Your task to perform on an android device: find photos in the google photos app Image 0: 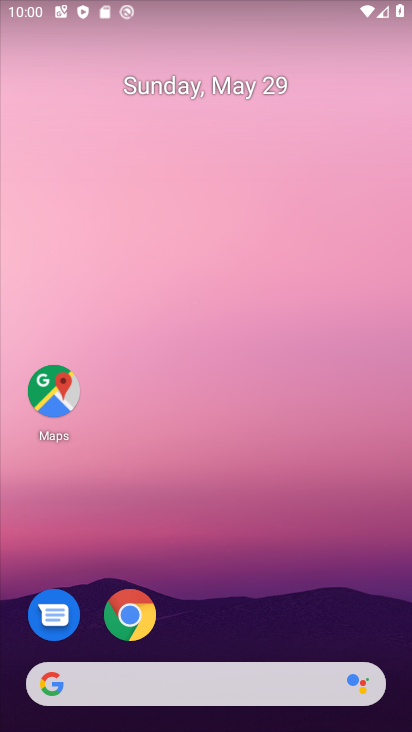
Step 0: drag from (201, 650) to (380, 460)
Your task to perform on an android device: find photos in the google photos app Image 1: 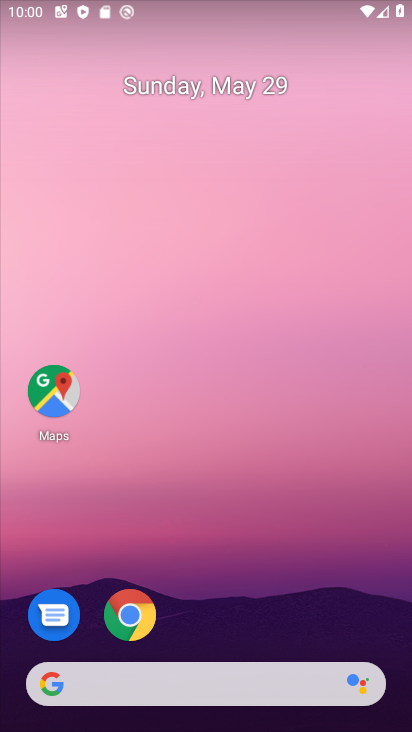
Step 1: drag from (191, 653) to (218, 15)
Your task to perform on an android device: find photos in the google photos app Image 2: 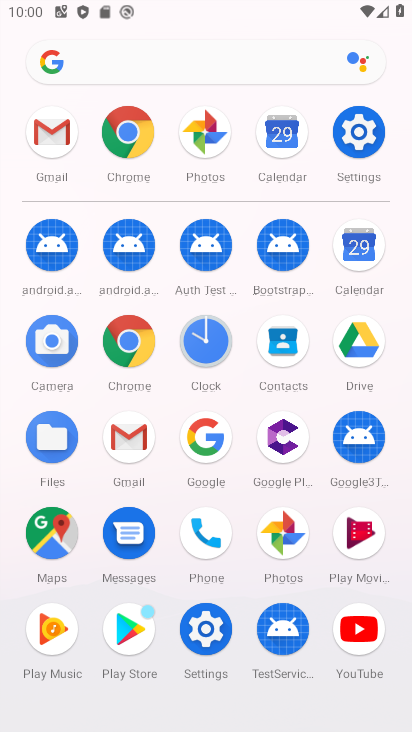
Step 2: click (268, 516)
Your task to perform on an android device: find photos in the google photos app Image 3: 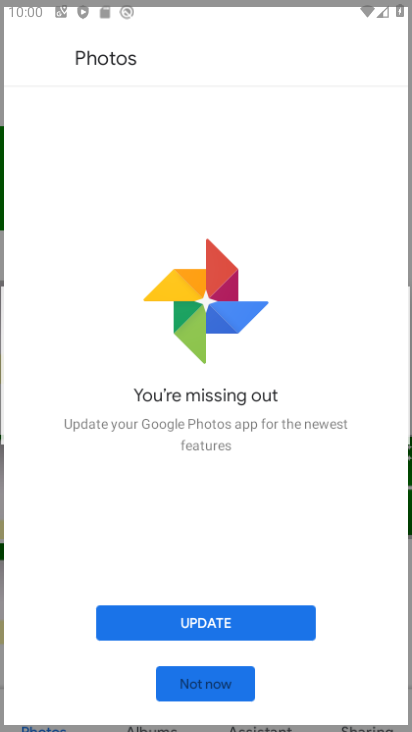
Step 3: click (234, 151)
Your task to perform on an android device: find photos in the google photos app Image 4: 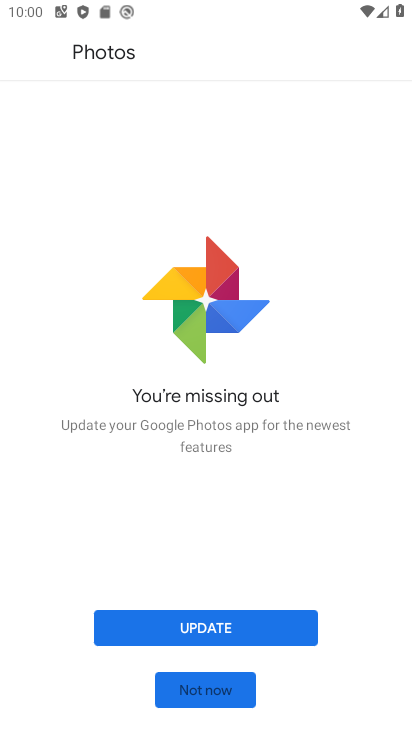
Step 4: click (241, 686)
Your task to perform on an android device: find photos in the google photos app Image 5: 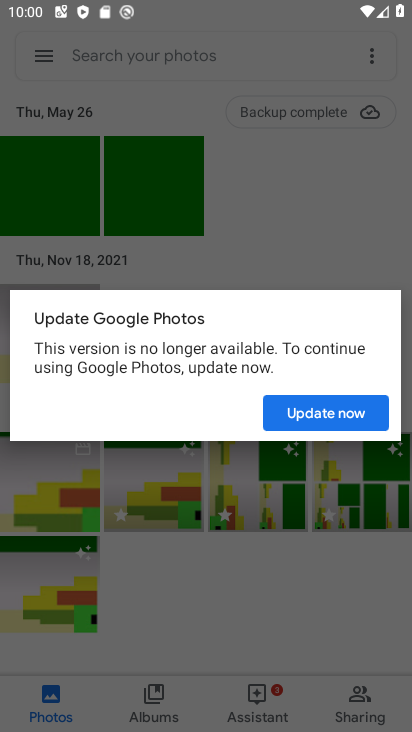
Step 5: click (308, 412)
Your task to perform on an android device: find photos in the google photos app Image 6: 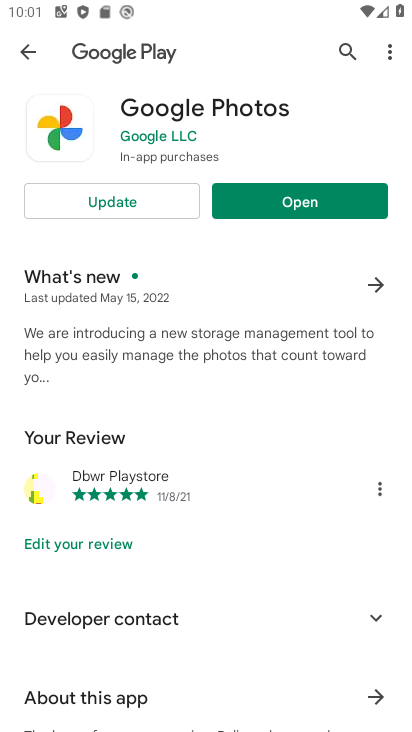
Step 6: click (242, 205)
Your task to perform on an android device: find photos in the google photos app Image 7: 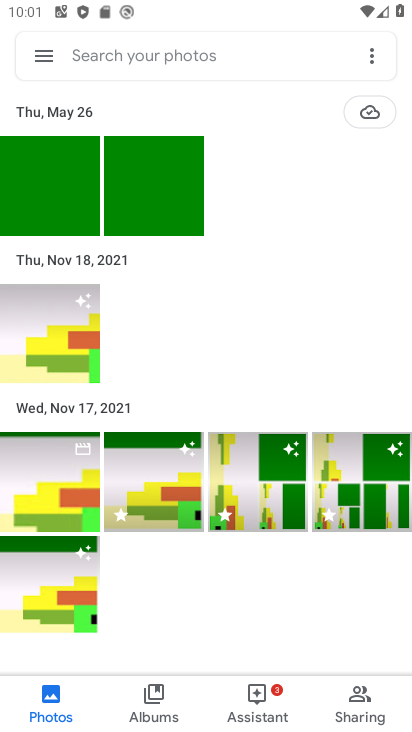
Step 7: task complete